Your task to perform on an android device: Show me productivity apps on the Play Store Image 0: 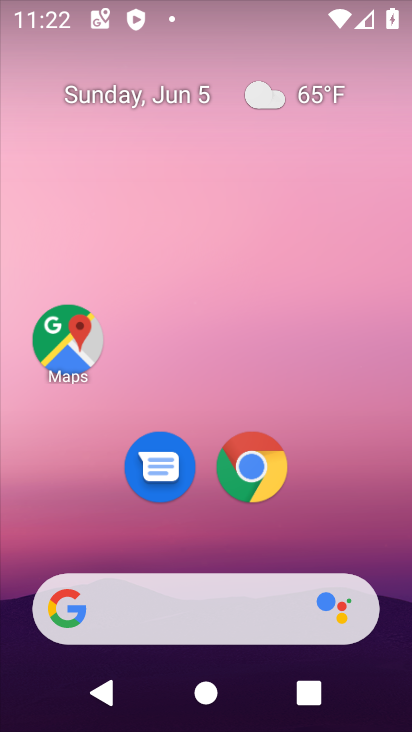
Step 0: drag from (320, 515) to (284, 189)
Your task to perform on an android device: Show me productivity apps on the Play Store Image 1: 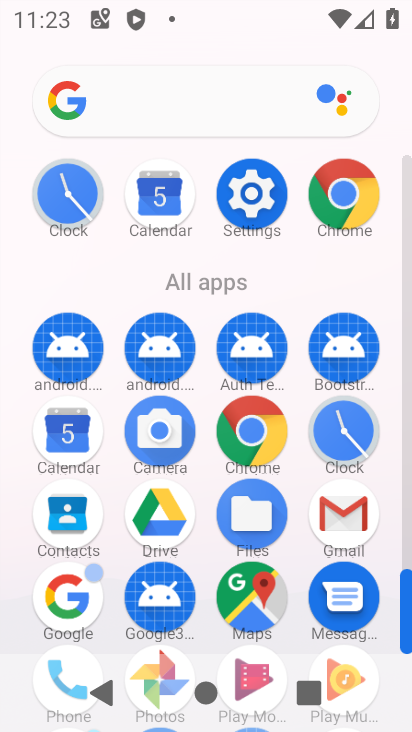
Step 1: drag from (403, 616) to (409, 698)
Your task to perform on an android device: Show me productivity apps on the Play Store Image 2: 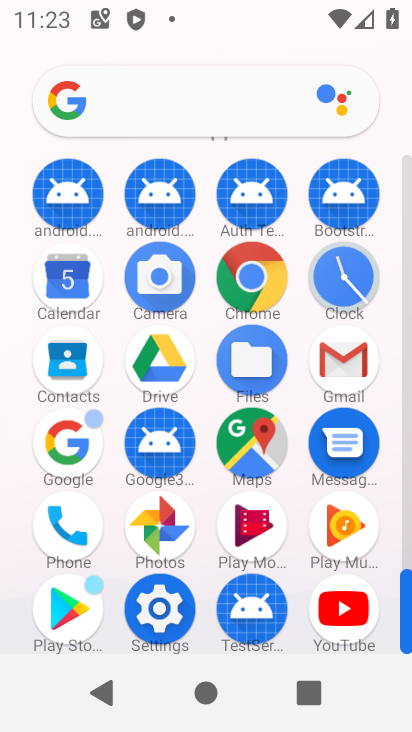
Step 2: click (71, 595)
Your task to perform on an android device: Show me productivity apps on the Play Store Image 3: 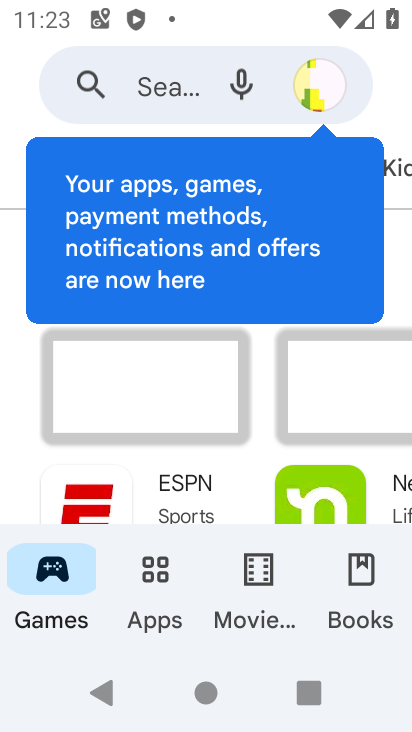
Step 3: click (142, 88)
Your task to perform on an android device: Show me productivity apps on the Play Store Image 4: 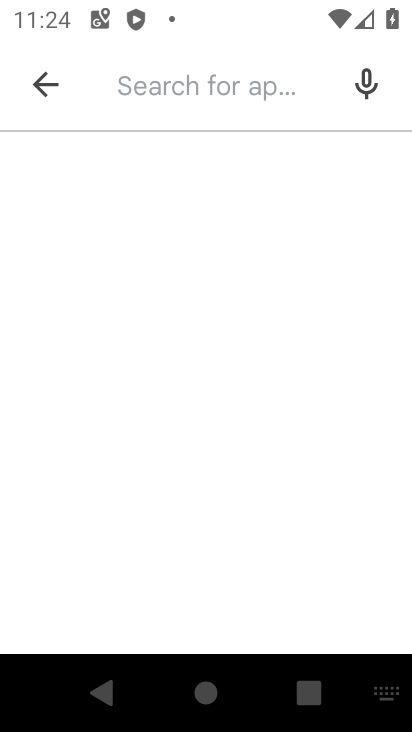
Step 4: type " productivity apps"
Your task to perform on an android device: Show me productivity apps on the Play Store Image 5: 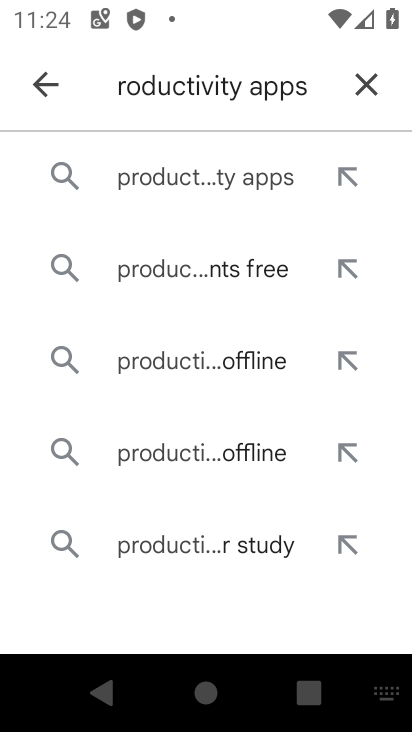
Step 5: click (137, 179)
Your task to perform on an android device: Show me productivity apps on the Play Store Image 6: 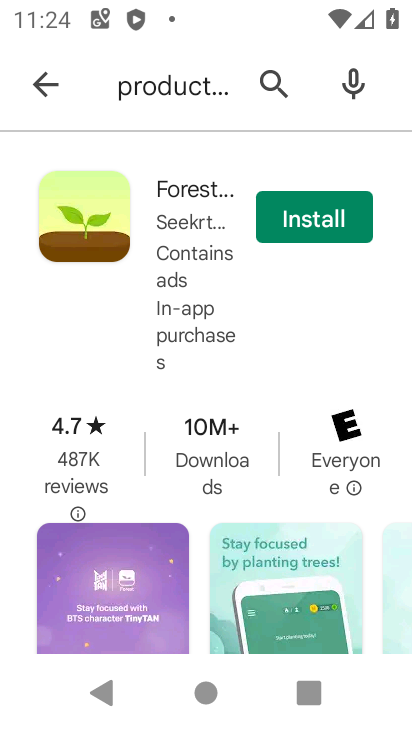
Step 6: task complete